Your task to perform on an android device: manage bookmarks in the chrome app Image 0: 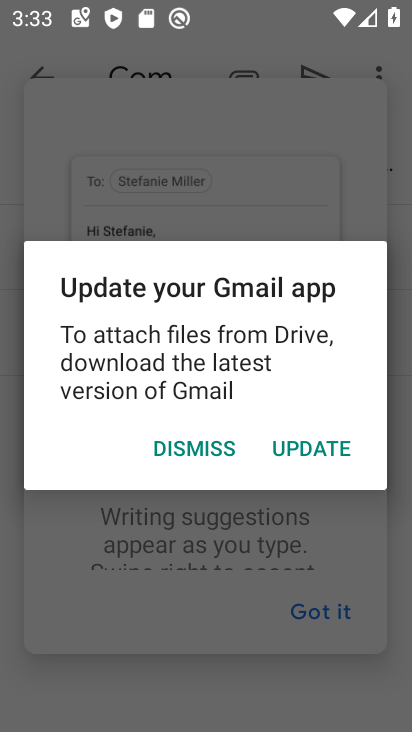
Step 0: press home button
Your task to perform on an android device: manage bookmarks in the chrome app Image 1: 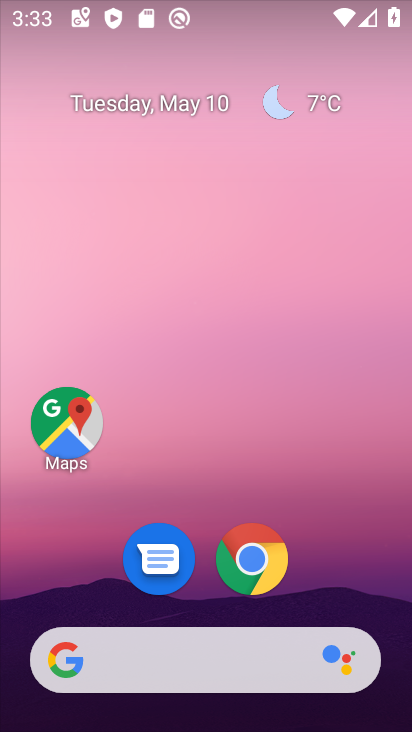
Step 1: click (277, 554)
Your task to perform on an android device: manage bookmarks in the chrome app Image 2: 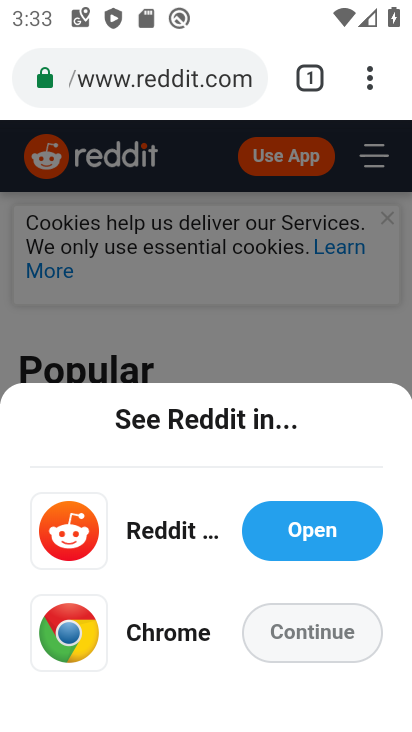
Step 2: task complete